Your task to perform on an android device: clear all cookies in the chrome app Image 0: 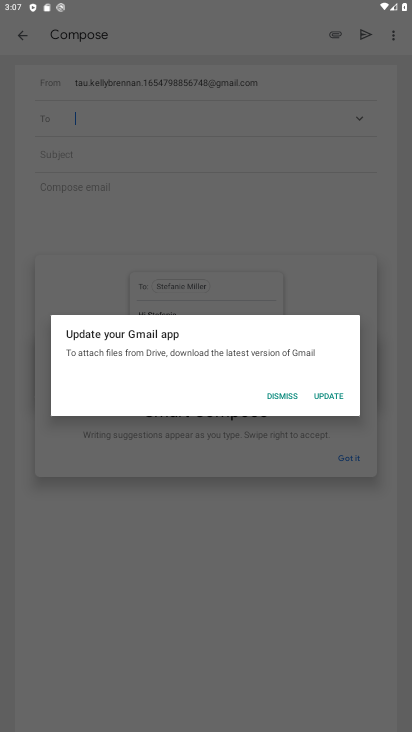
Step 0: press home button
Your task to perform on an android device: clear all cookies in the chrome app Image 1: 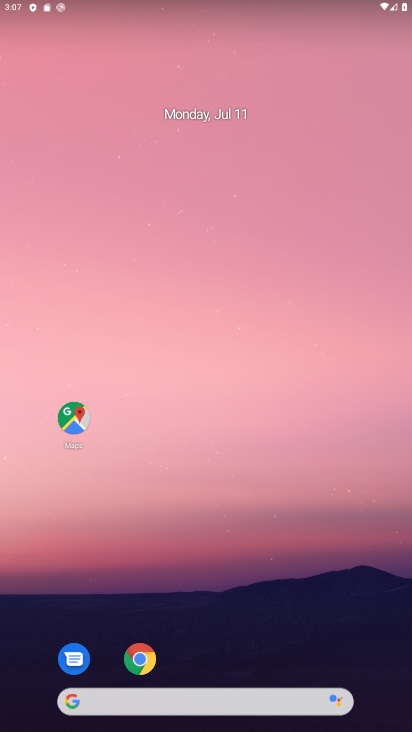
Step 1: drag from (207, 692) to (265, 211)
Your task to perform on an android device: clear all cookies in the chrome app Image 2: 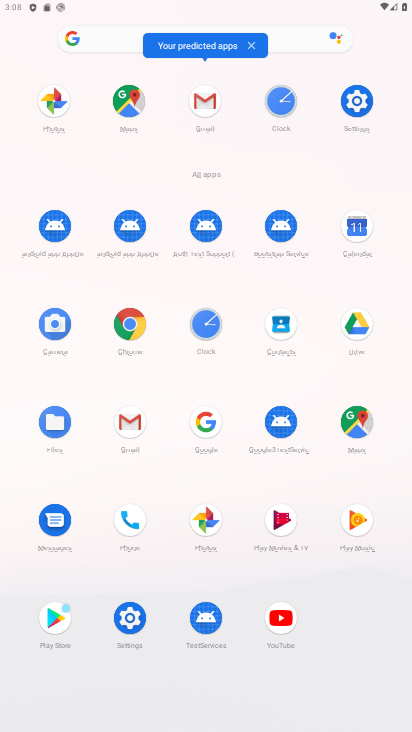
Step 2: click (137, 325)
Your task to perform on an android device: clear all cookies in the chrome app Image 3: 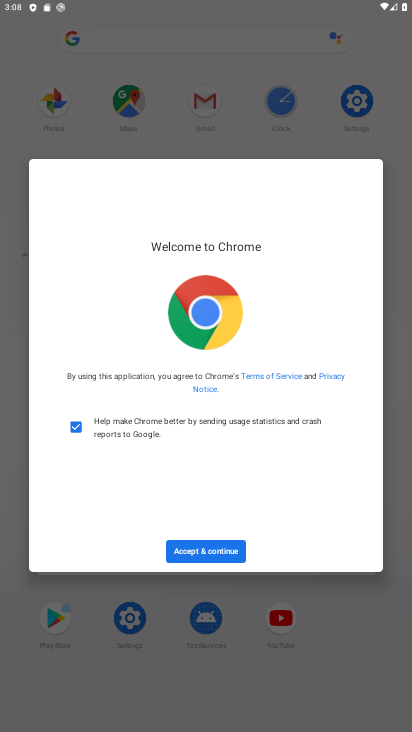
Step 3: click (219, 550)
Your task to perform on an android device: clear all cookies in the chrome app Image 4: 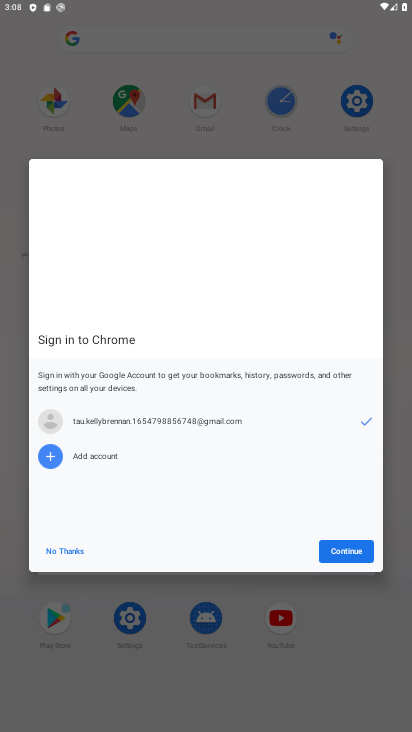
Step 4: click (353, 556)
Your task to perform on an android device: clear all cookies in the chrome app Image 5: 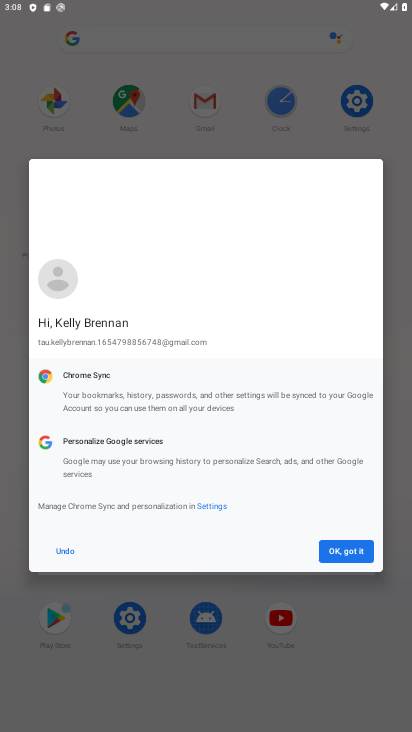
Step 5: click (356, 549)
Your task to perform on an android device: clear all cookies in the chrome app Image 6: 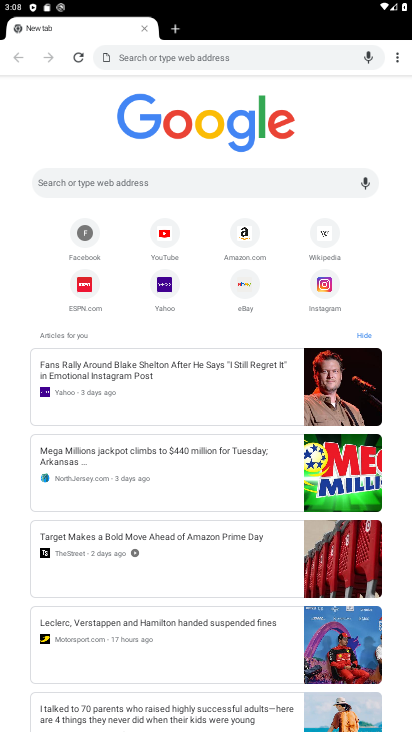
Step 6: click (399, 58)
Your task to perform on an android device: clear all cookies in the chrome app Image 7: 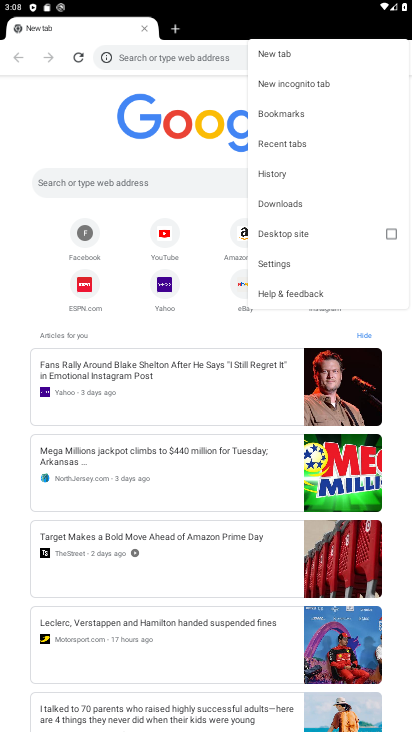
Step 7: click (279, 174)
Your task to perform on an android device: clear all cookies in the chrome app Image 8: 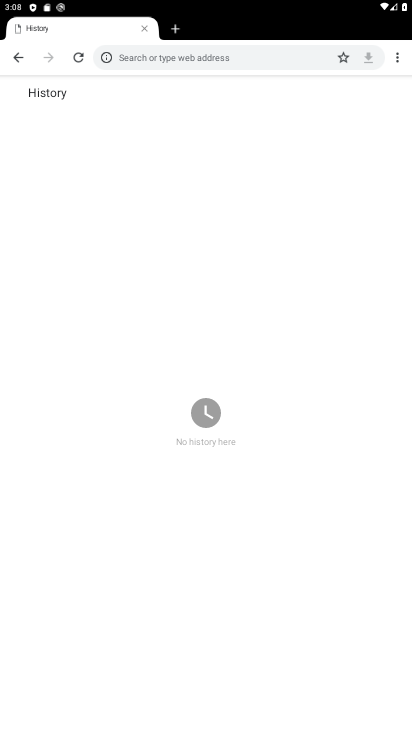
Step 8: task complete